Your task to perform on an android device: delete location history Image 0: 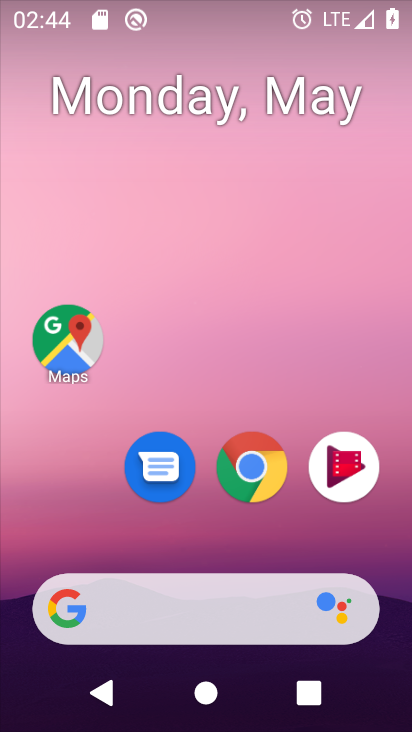
Step 0: drag from (237, 536) to (260, 180)
Your task to perform on an android device: delete location history Image 1: 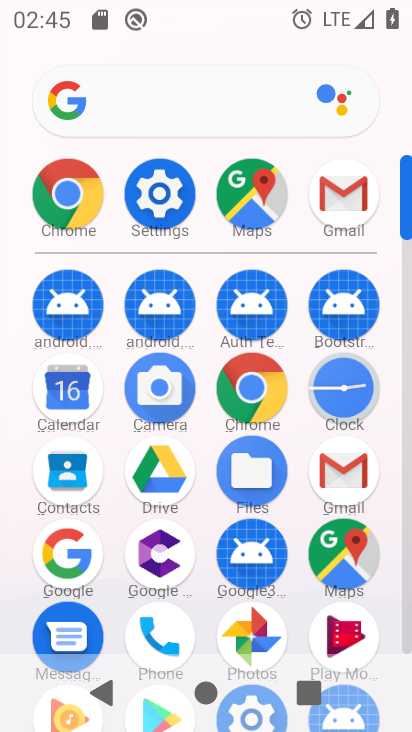
Step 1: click (167, 182)
Your task to perform on an android device: delete location history Image 2: 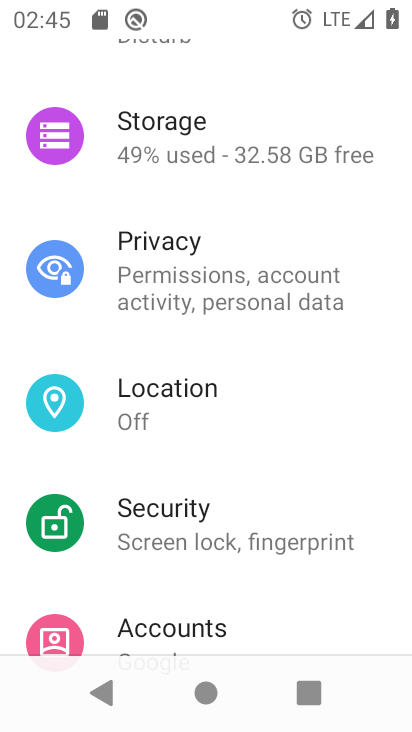
Step 2: click (196, 399)
Your task to perform on an android device: delete location history Image 3: 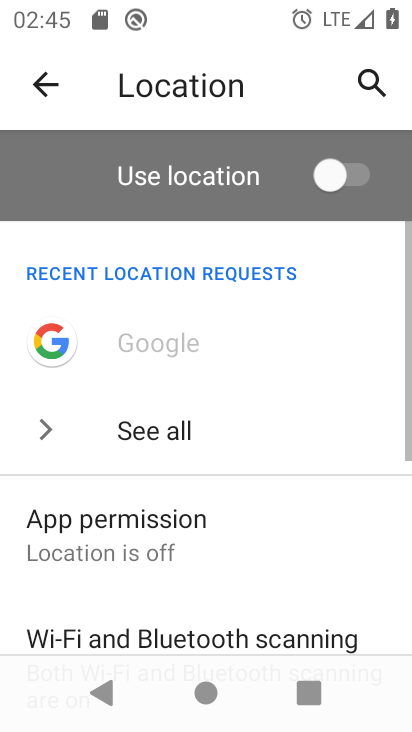
Step 3: drag from (245, 559) to (309, 167)
Your task to perform on an android device: delete location history Image 4: 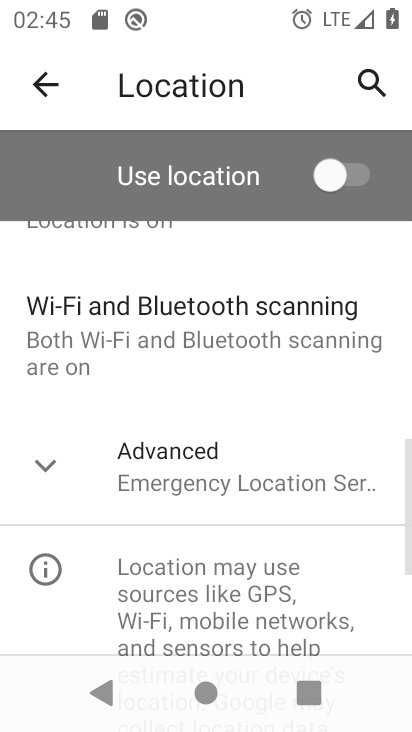
Step 4: drag from (235, 549) to (262, 427)
Your task to perform on an android device: delete location history Image 5: 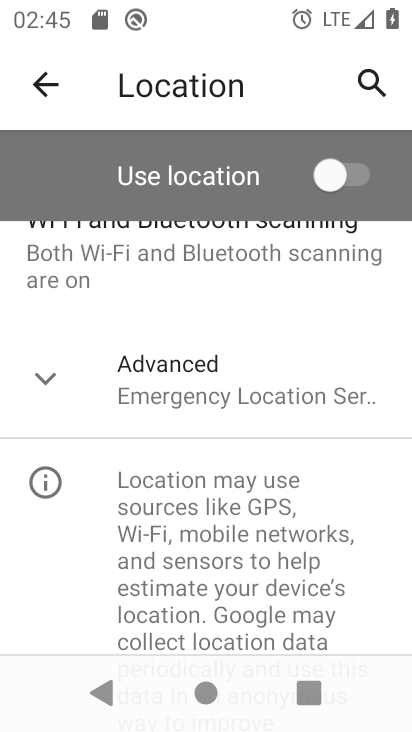
Step 5: click (199, 404)
Your task to perform on an android device: delete location history Image 6: 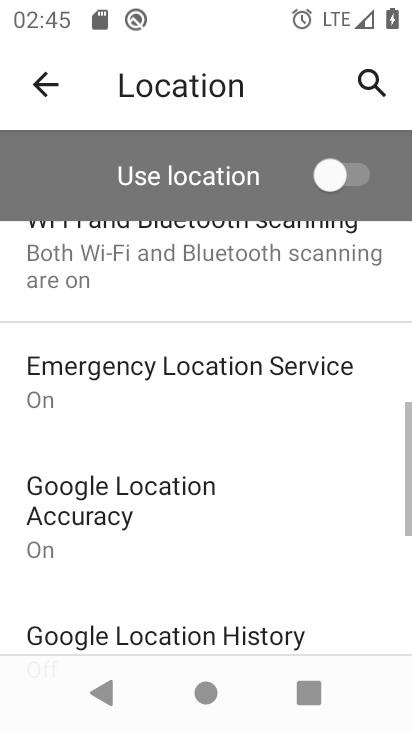
Step 6: drag from (206, 532) to (262, 232)
Your task to perform on an android device: delete location history Image 7: 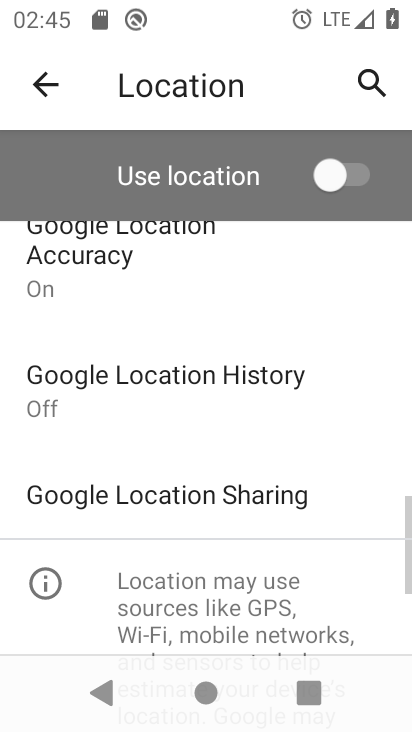
Step 7: drag from (194, 559) to (285, 275)
Your task to perform on an android device: delete location history Image 8: 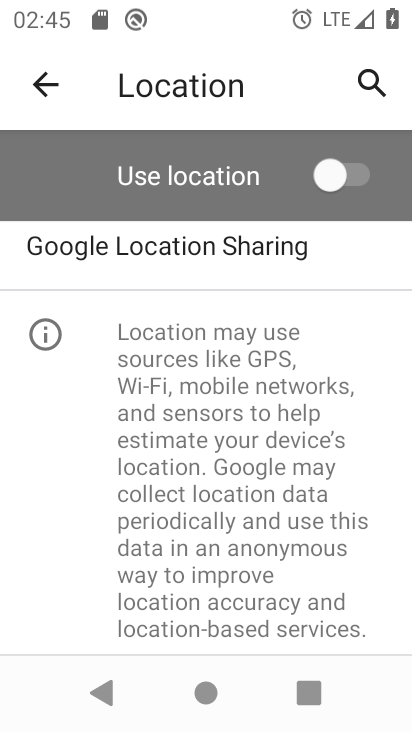
Step 8: press home button
Your task to perform on an android device: delete location history Image 9: 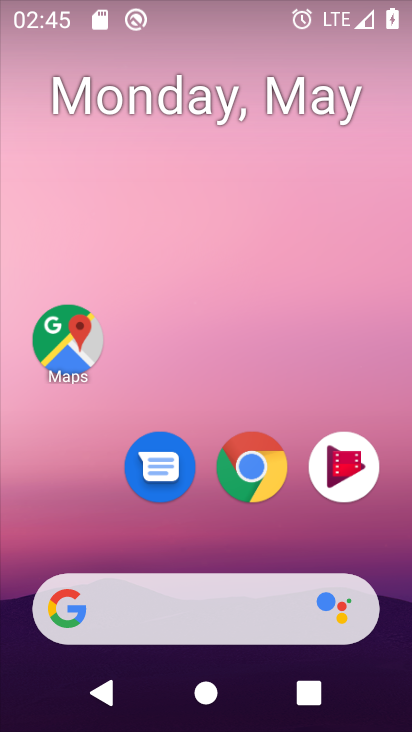
Step 9: click (74, 337)
Your task to perform on an android device: delete location history Image 10: 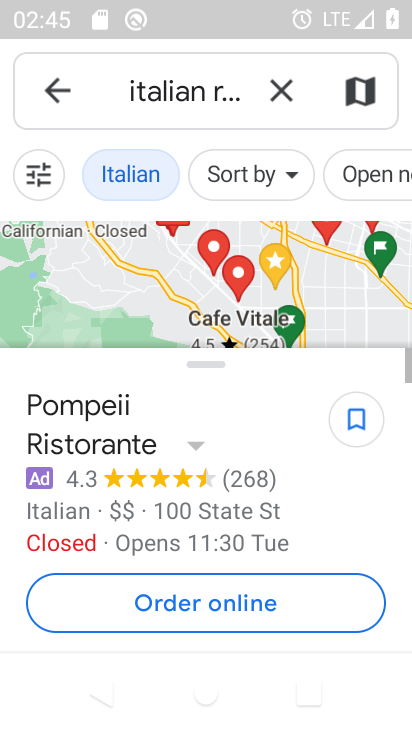
Step 10: click (277, 73)
Your task to perform on an android device: delete location history Image 11: 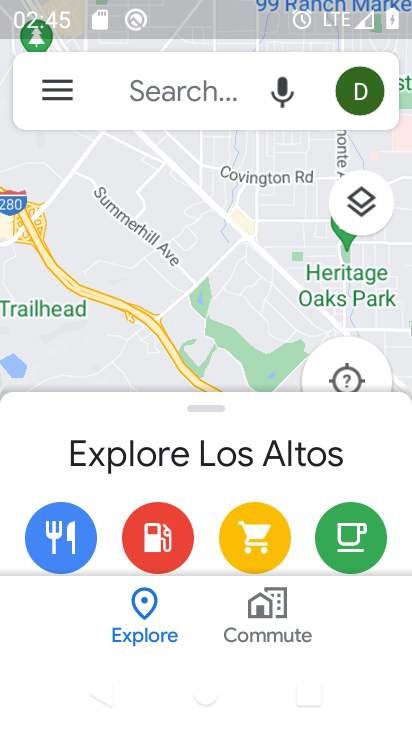
Step 11: click (60, 92)
Your task to perform on an android device: delete location history Image 12: 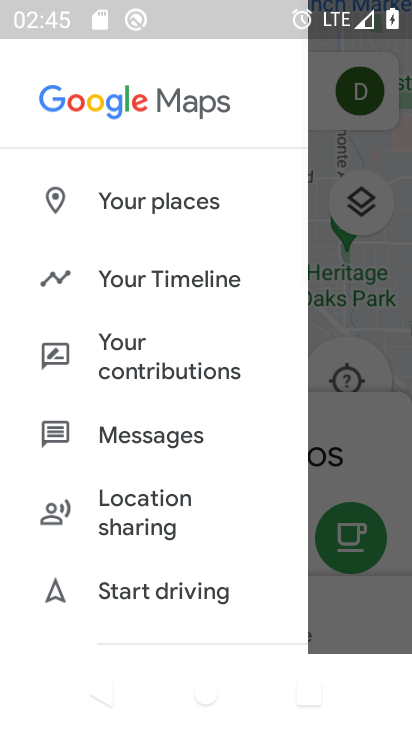
Step 12: drag from (171, 557) to (179, 263)
Your task to perform on an android device: delete location history Image 13: 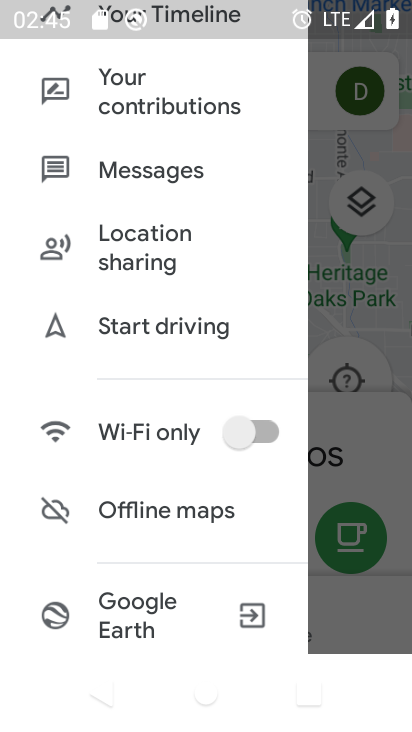
Step 13: drag from (152, 176) to (83, 572)
Your task to perform on an android device: delete location history Image 14: 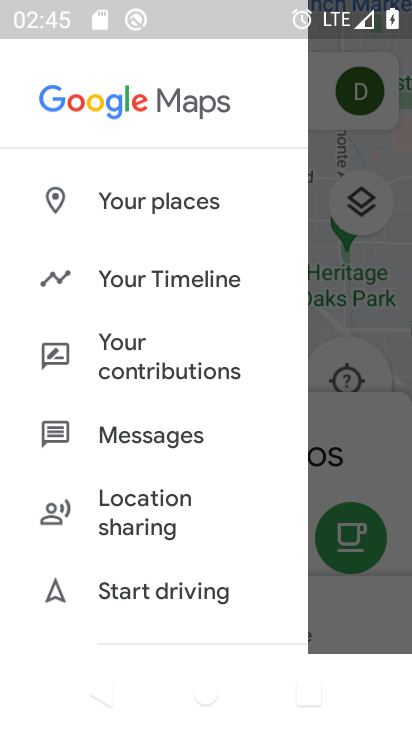
Step 14: click (134, 269)
Your task to perform on an android device: delete location history Image 15: 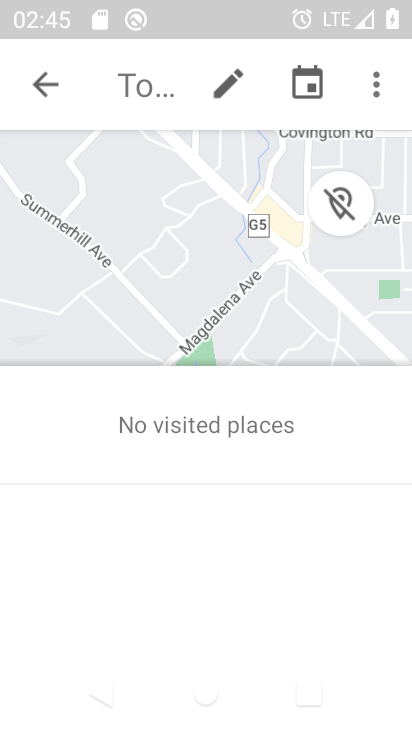
Step 15: click (371, 78)
Your task to perform on an android device: delete location history Image 16: 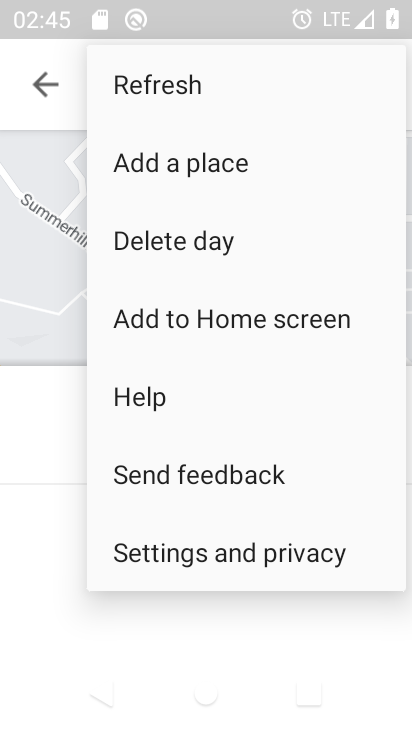
Step 16: click (209, 538)
Your task to perform on an android device: delete location history Image 17: 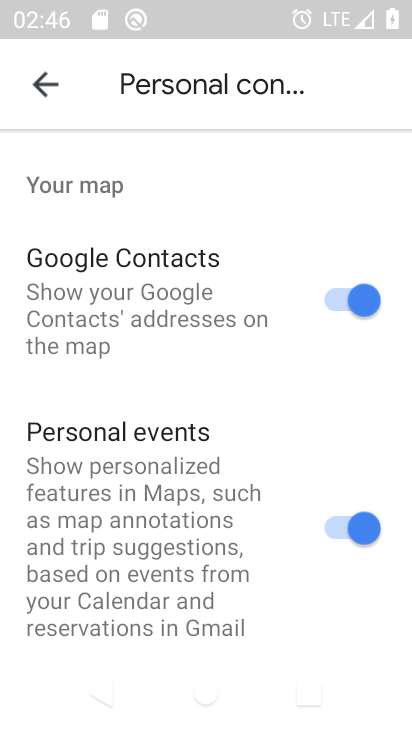
Step 17: drag from (195, 552) to (273, 213)
Your task to perform on an android device: delete location history Image 18: 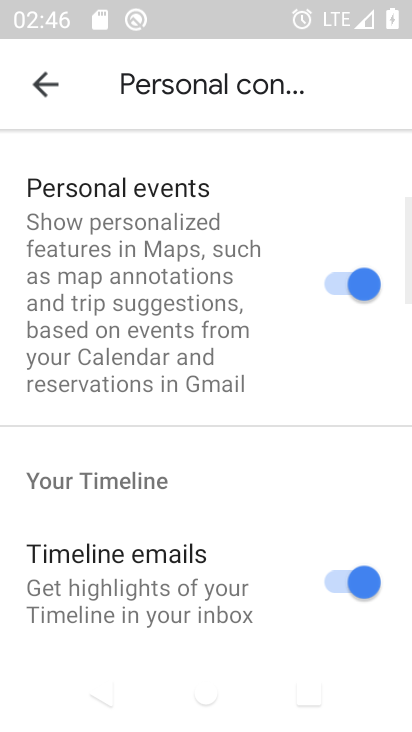
Step 18: drag from (194, 522) to (254, 157)
Your task to perform on an android device: delete location history Image 19: 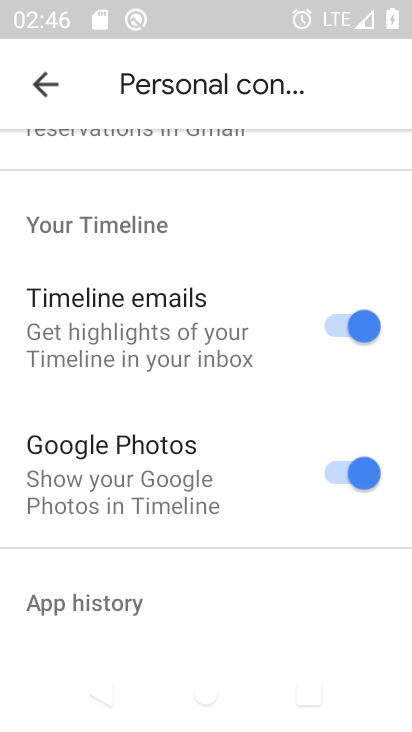
Step 19: drag from (155, 574) to (260, 140)
Your task to perform on an android device: delete location history Image 20: 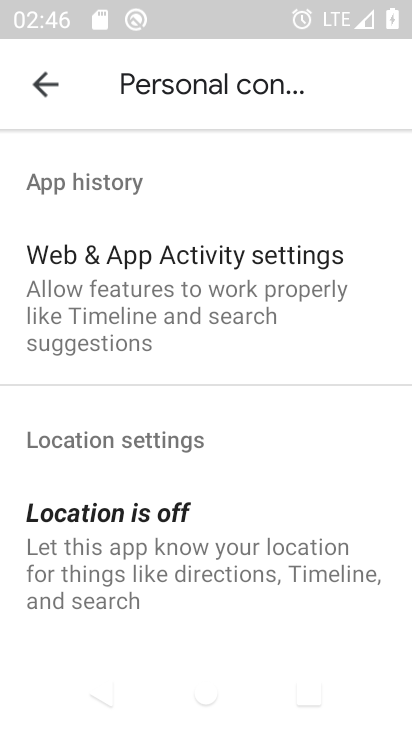
Step 20: drag from (210, 517) to (290, 153)
Your task to perform on an android device: delete location history Image 21: 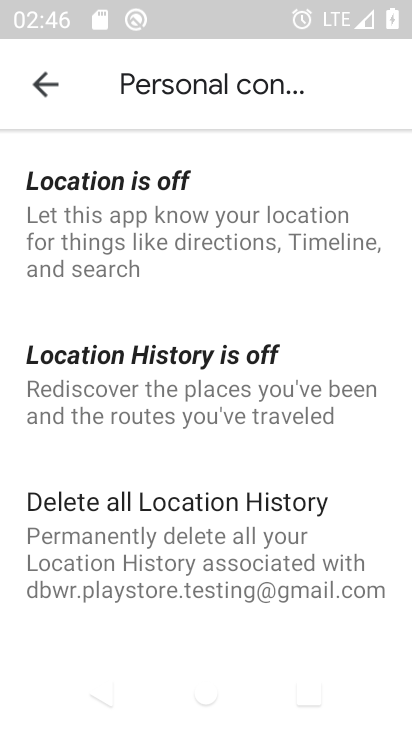
Step 21: click (178, 537)
Your task to perform on an android device: delete location history Image 22: 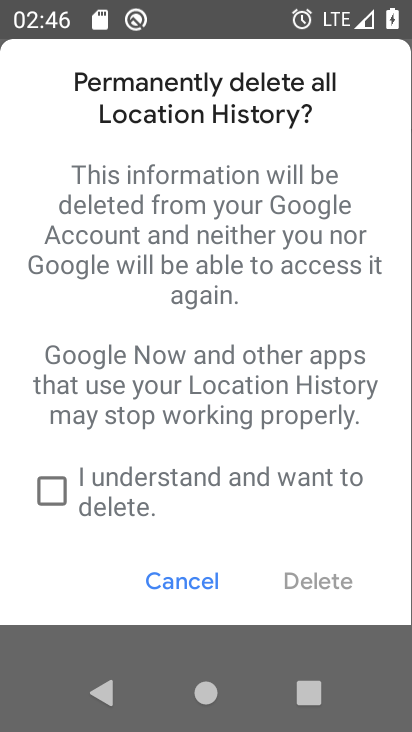
Step 22: click (64, 487)
Your task to perform on an android device: delete location history Image 23: 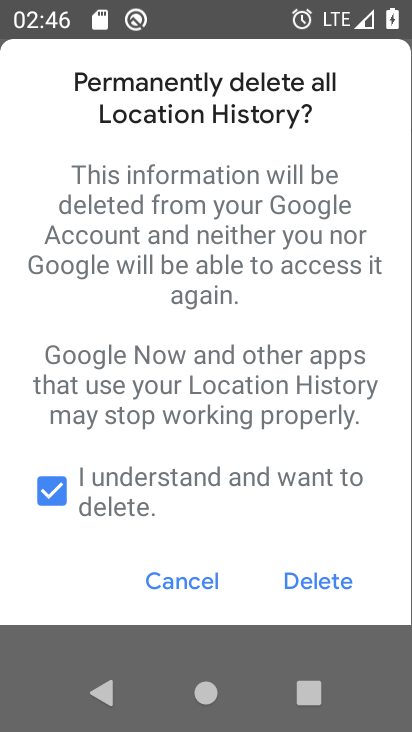
Step 23: click (326, 581)
Your task to perform on an android device: delete location history Image 24: 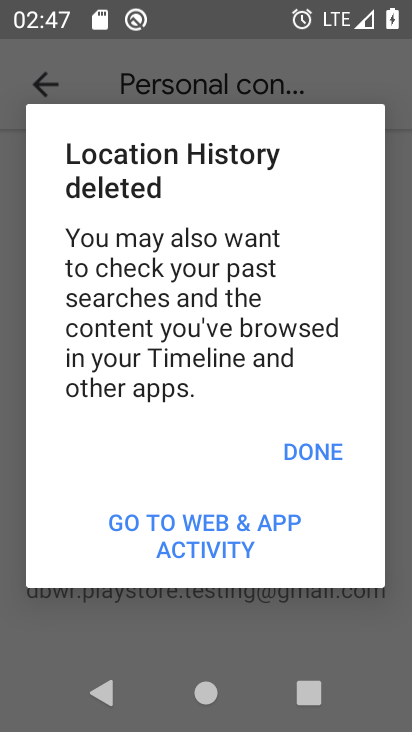
Step 24: click (303, 450)
Your task to perform on an android device: delete location history Image 25: 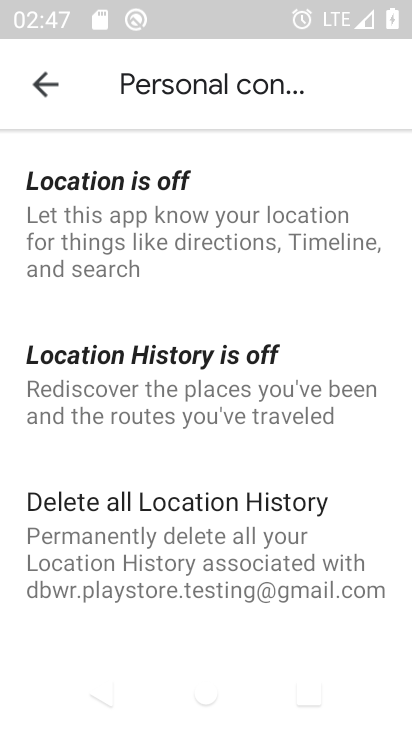
Step 25: task complete